Your task to perform on an android device: Search for Mexican restaurants on Maps Image 0: 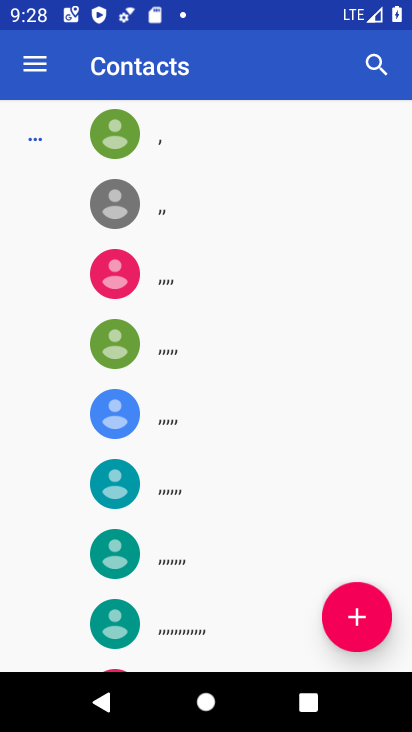
Step 0: press home button
Your task to perform on an android device: Search for Mexican restaurants on Maps Image 1: 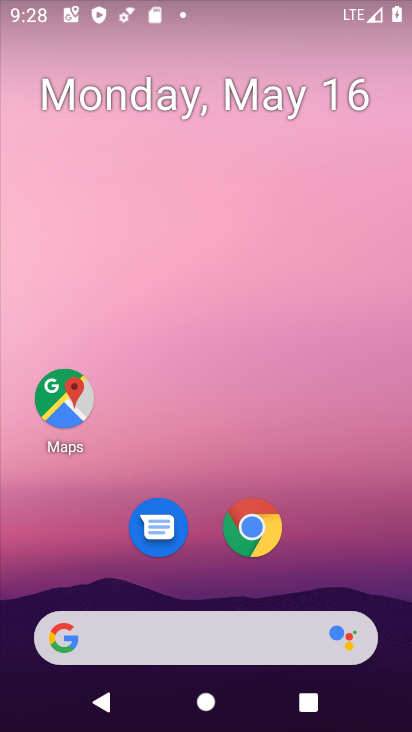
Step 1: click (60, 406)
Your task to perform on an android device: Search for Mexican restaurants on Maps Image 2: 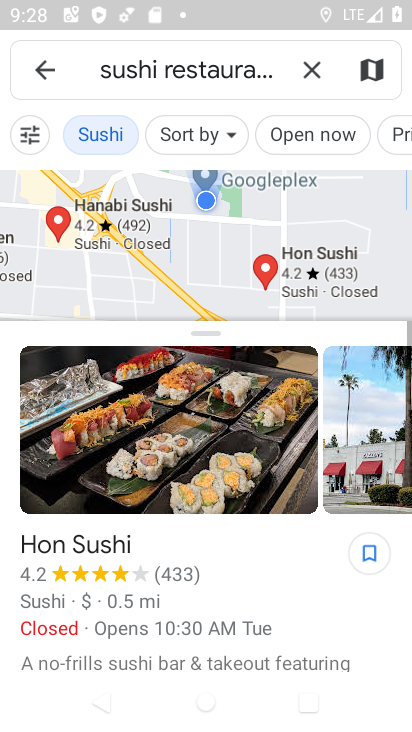
Step 2: click (308, 74)
Your task to perform on an android device: Search for Mexican restaurants on Maps Image 3: 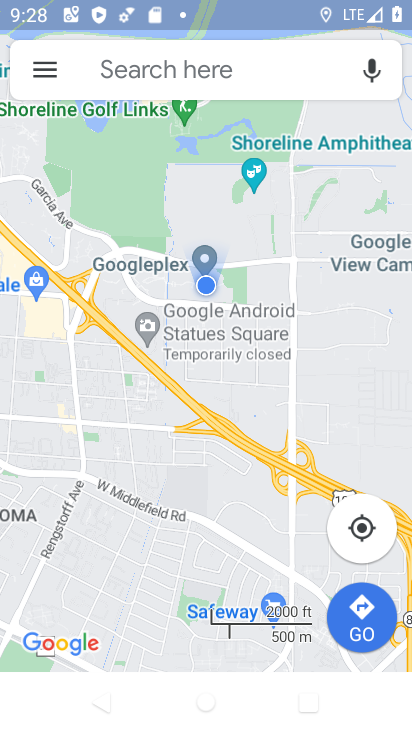
Step 3: click (128, 66)
Your task to perform on an android device: Search for Mexican restaurants on Maps Image 4: 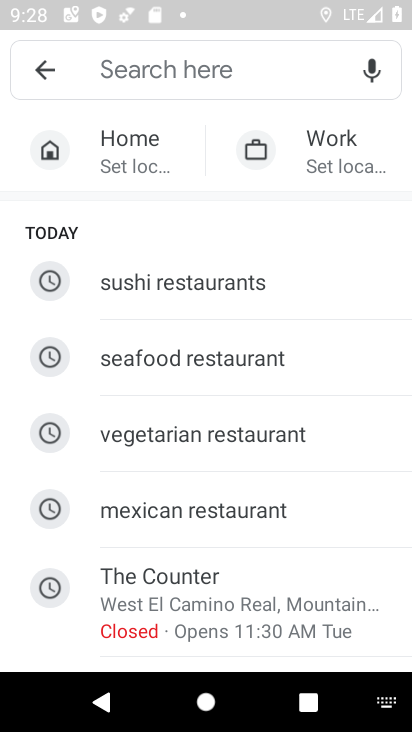
Step 4: type "mexican restaurant"
Your task to perform on an android device: Search for Mexican restaurants on Maps Image 5: 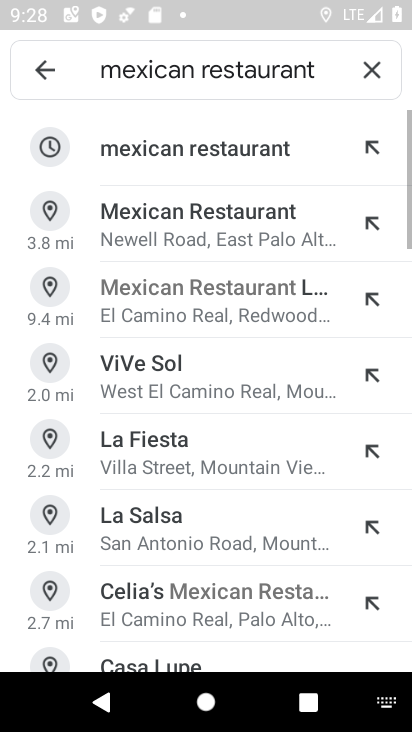
Step 5: click (203, 146)
Your task to perform on an android device: Search for Mexican restaurants on Maps Image 6: 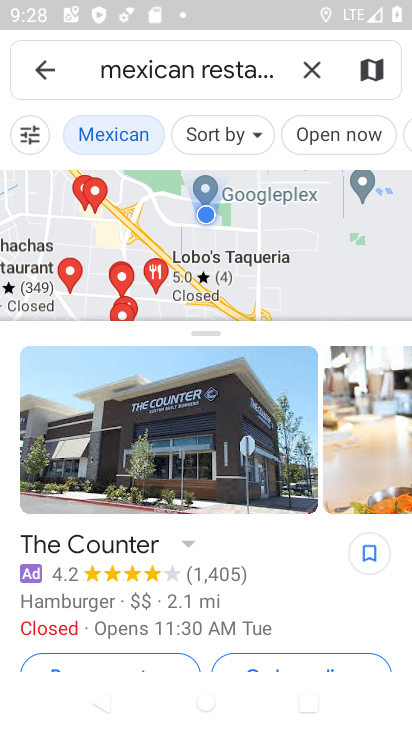
Step 6: task complete